Your task to perform on an android device: Go to calendar. Show me events next week Image 0: 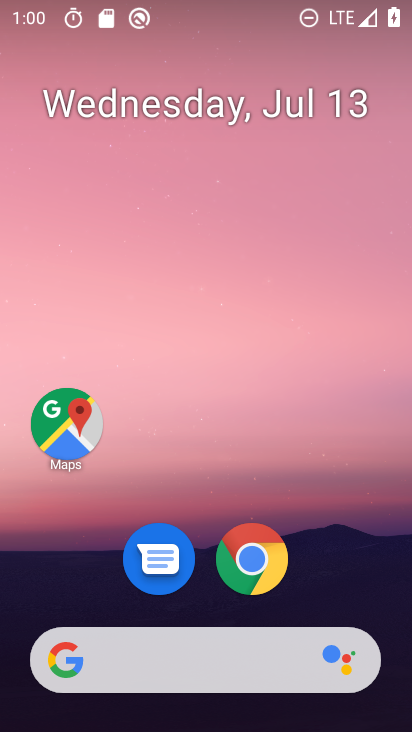
Step 0: drag from (236, 681) to (323, 198)
Your task to perform on an android device: Go to calendar. Show me events next week Image 1: 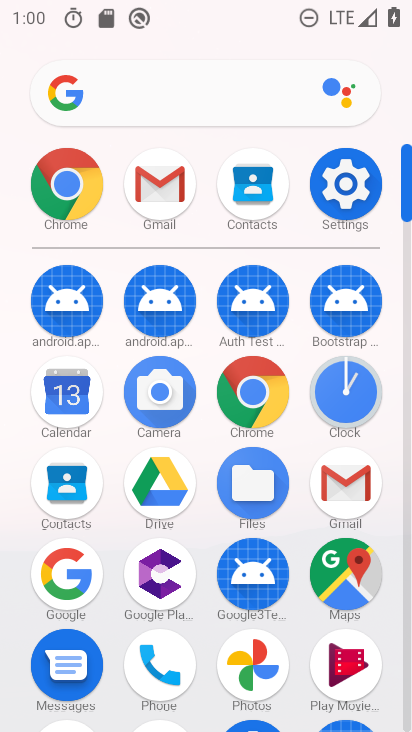
Step 1: drag from (231, 503) to (287, 306)
Your task to perform on an android device: Go to calendar. Show me events next week Image 2: 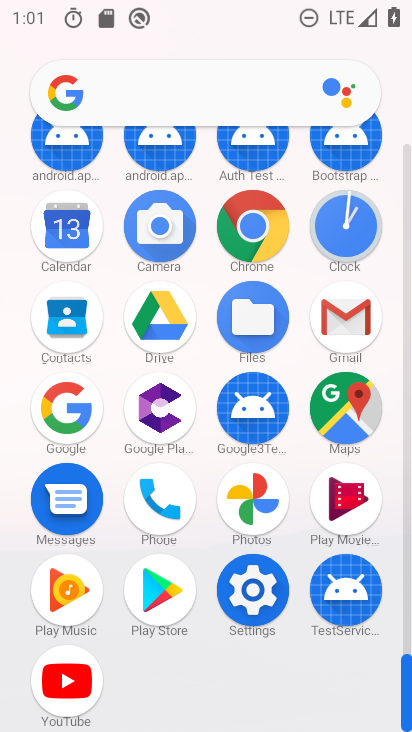
Step 2: click (74, 235)
Your task to perform on an android device: Go to calendar. Show me events next week Image 3: 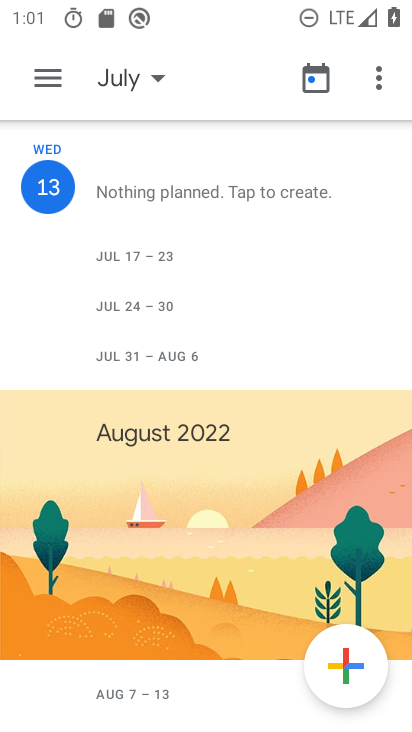
Step 3: task complete